Your task to perform on an android device: Open calendar and show me the third week of next month Image 0: 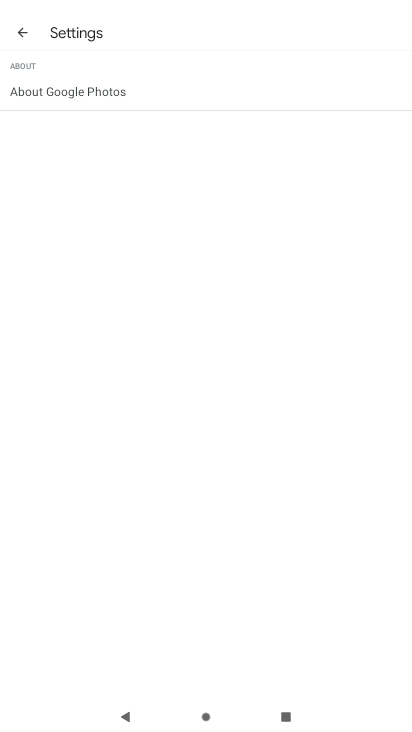
Step 0: press home button
Your task to perform on an android device: Open calendar and show me the third week of next month Image 1: 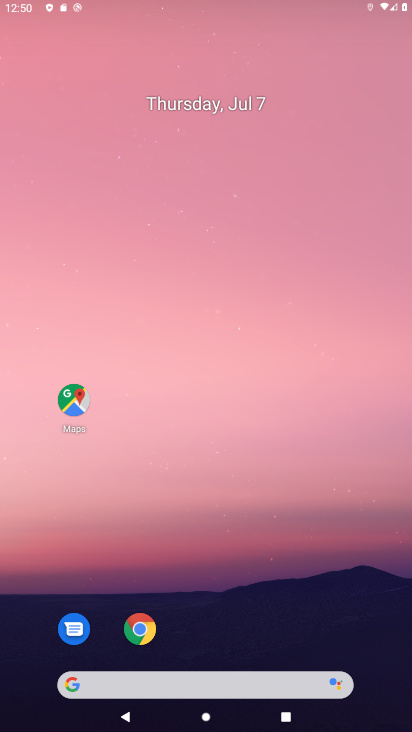
Step 1: drag from (216, 611) to (250, 127)
Your task to perform on an android device: Open calendar and show me the third week of next month Image 2: 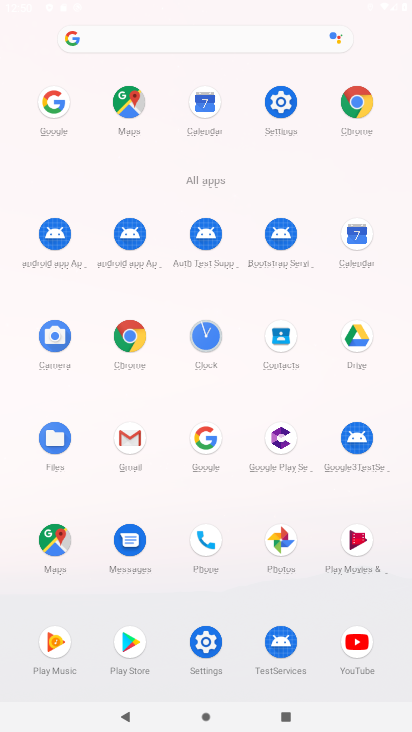
Step 2: click (361, 235)
Your task to perform on an android device: Open calendar and show me the third week of next month Image 3: 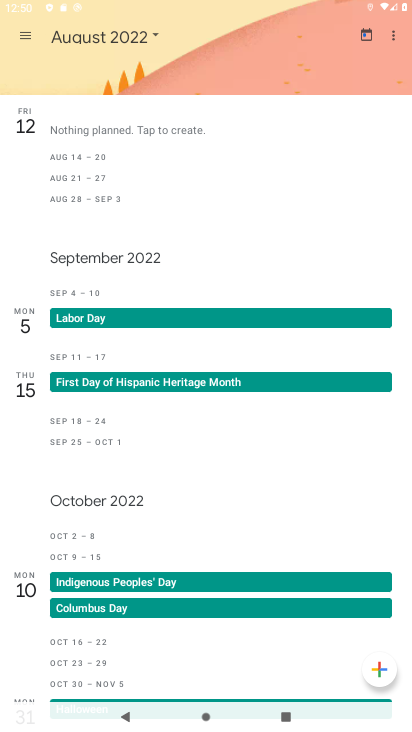
Step 3: click (122, 42)
Your task to perform on an android device: Open calendar and show me the third week of next month Image 4: 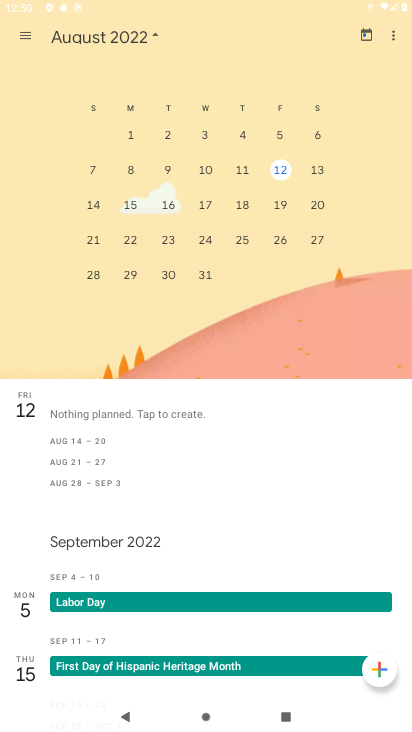
Step 4: click (279, 205)
Your task to perform on an android device: Open calendar and show me the third week of next month Image 5: 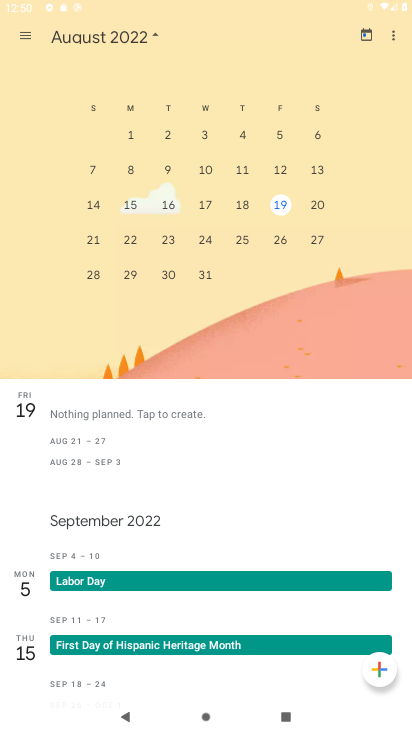
Step 5: task complete